Your task to perform on an android device: clear history in the chrome app Image 0: 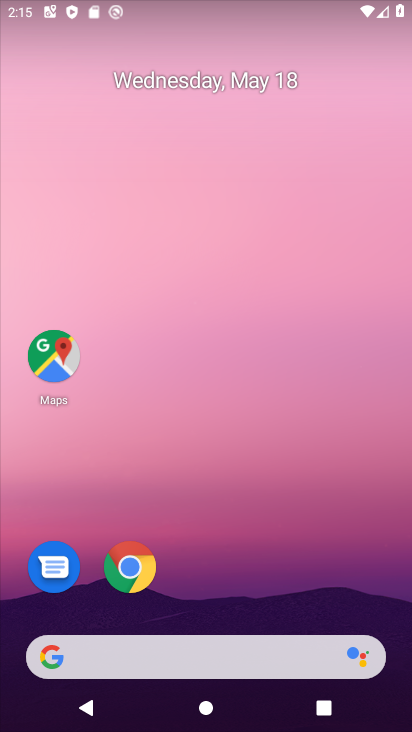
Step 0: drag from (234, 555) to (260, 183)
Your task to perform on an android device: clear history in the chrome app Image 1: 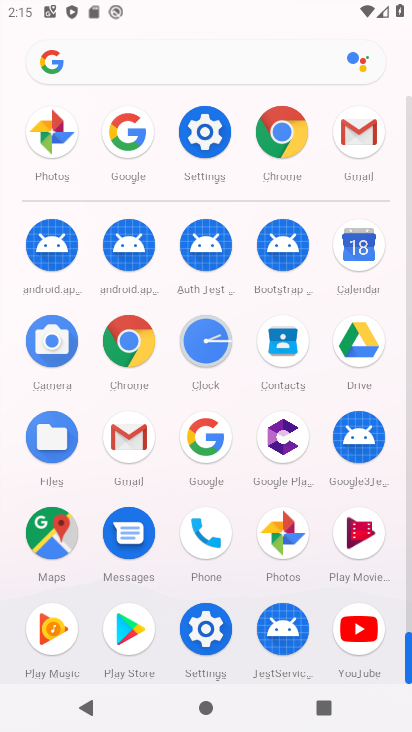
Step 1: click (128, 328)
Your task to perform on an android device: clear history in the chrome app Image 2: 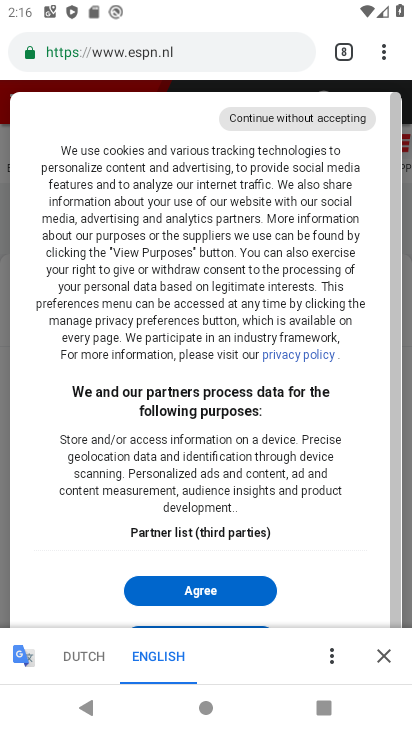
Step 2: click (374, 51)
Your task to perform on an android device: clear history in the chrome app Image 3: 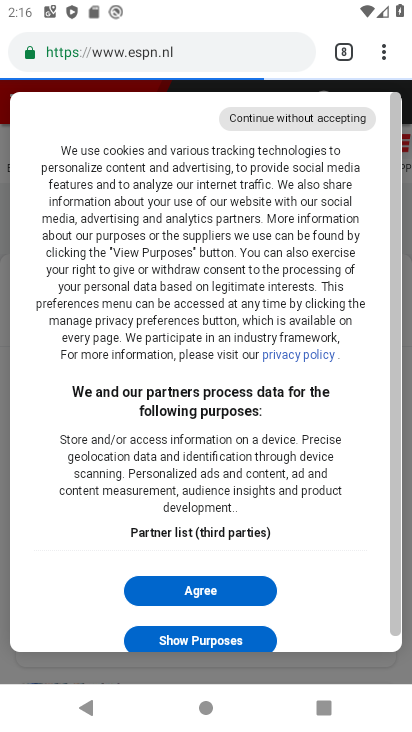
Step 3: click (376, 49)
Your task to perform on an android device: clear history in the chrome app Image 4: 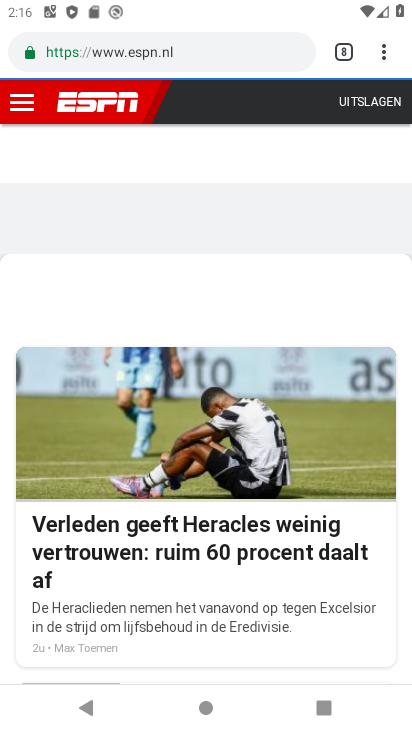
Step 4: click (378, 50)
Your task to perform on an android device: clear history in the chrome app Image 5: 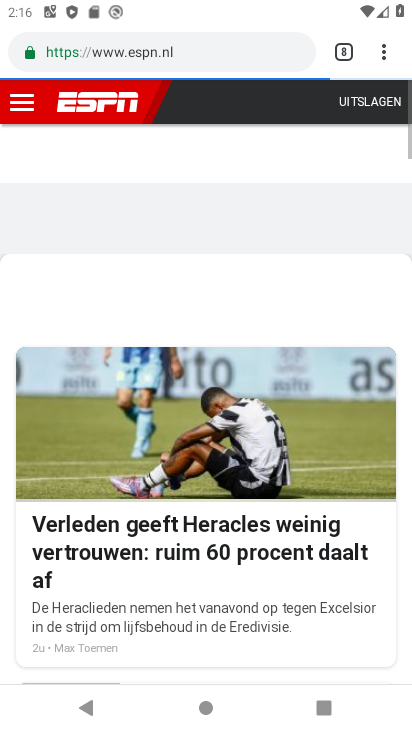
Step 5: click (375, 44)
Your task to perform on an android device: clear history in the chrome app Image 6: 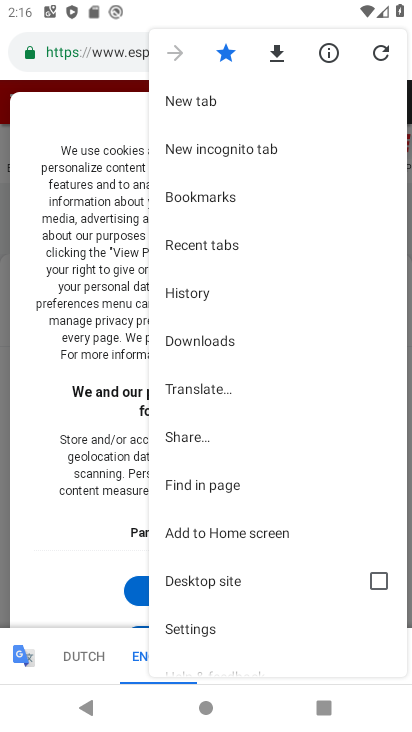
Step 6: click (224, 277)
Your task to perform on an android device: clear history in the chrome app Image 7: 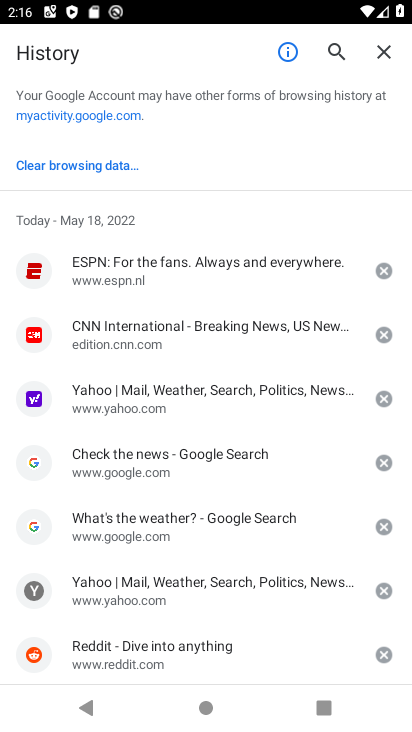
Step 7: click (77, 159)
Your task to perform on an android device: clear history in the chrome app Image 8: 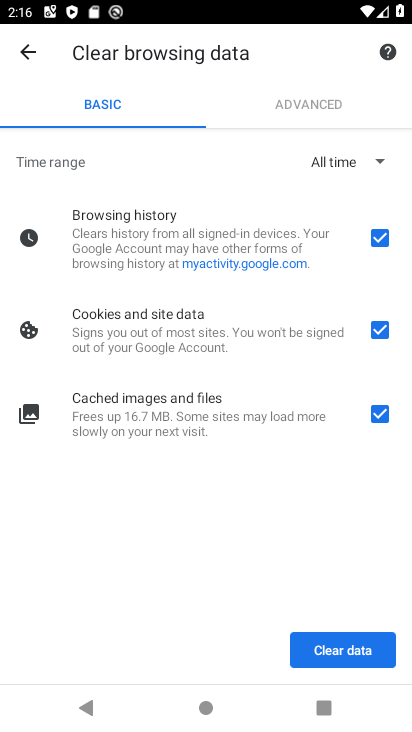
Step 8: click (329, 653)
Your task to perform on an android device: clear history in the chrome app Image 9: 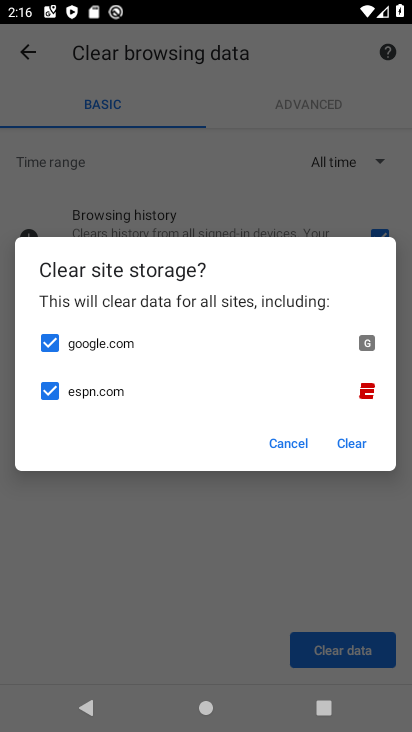
Step 9: click (332, 447)
Your task to perform on an android device: clear history in the chrome app Image 10: 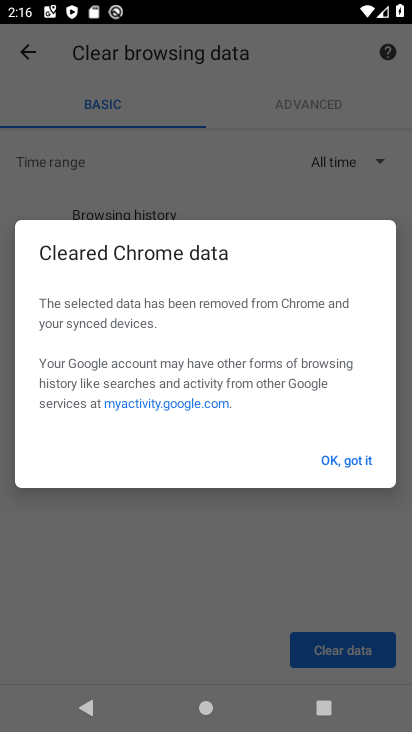
Step 10: task complete